Your task to perform on an android device: Toggle the flashlight Image 0: 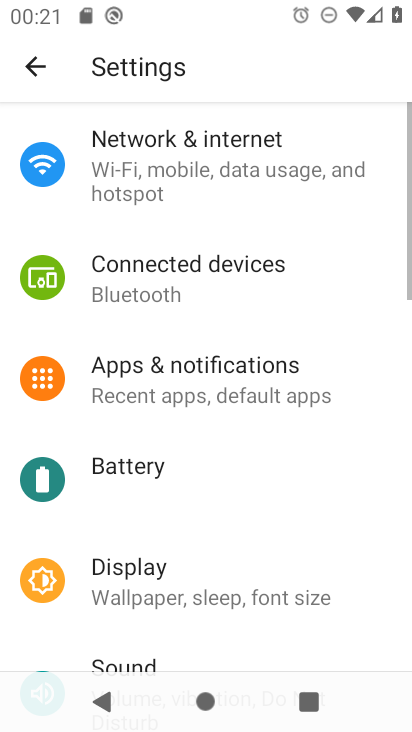
Step 0: press home button
Your task to perform on an android device: Toggle the flashlight Image 1: 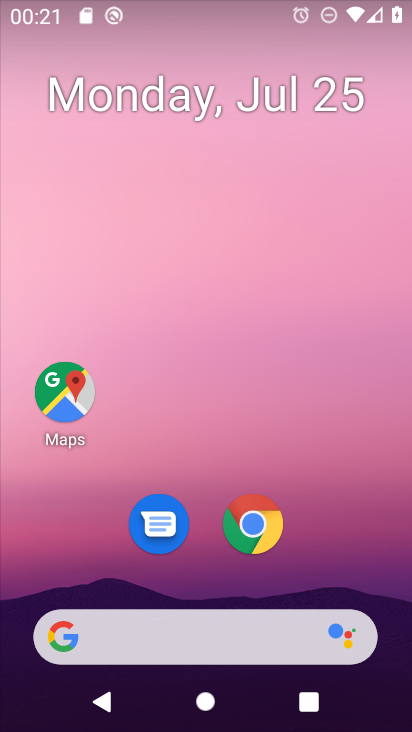
Step 1: task complete